Your task to perform on an android device: Open calendar and show me the second week of next month Image 0: 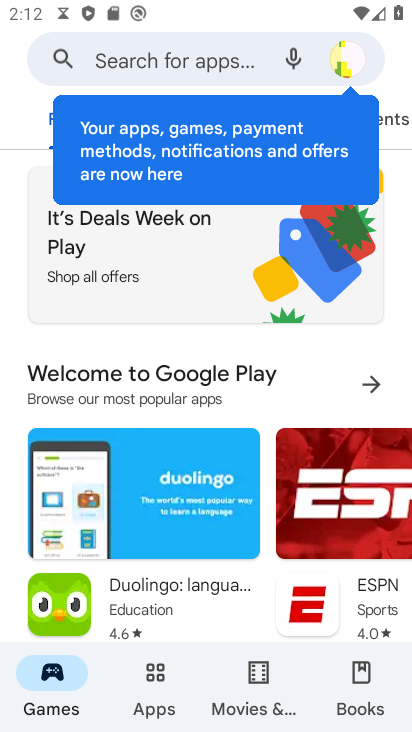
Step 0: press back button
Your task to perform on an android device: Open calendar and show me the second week of next month Image 1: 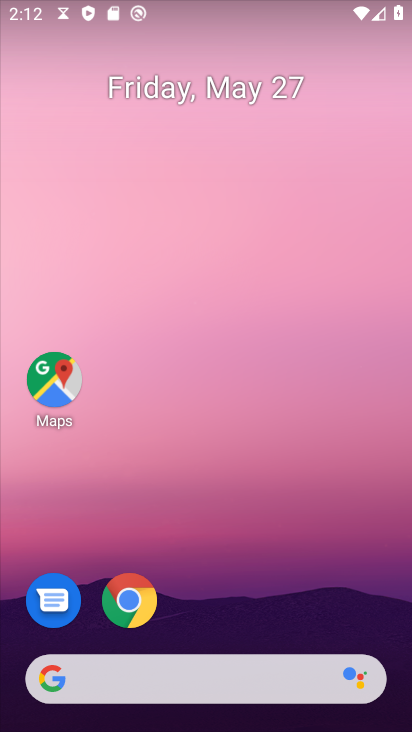
Step 1: drag from (263, 554) to (262, 24)
Your task to perform on an android device: Open calendar and show me the second week of next month Image 2: 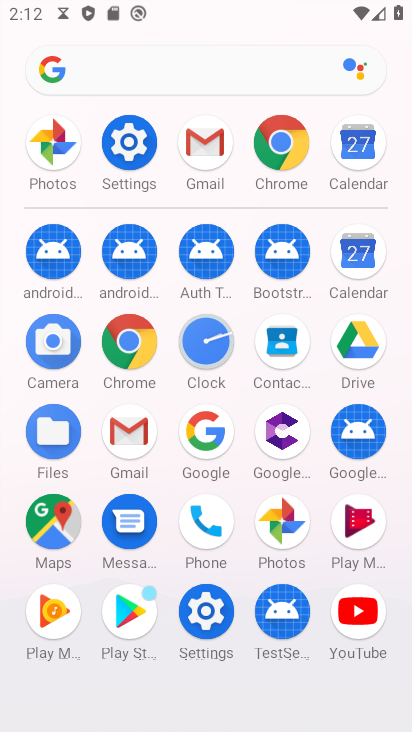
Step 2: drag from (1, 560) to (24, 240)
Your task to perform on an android device: Open calendar and show me the second week of next month Image 3: 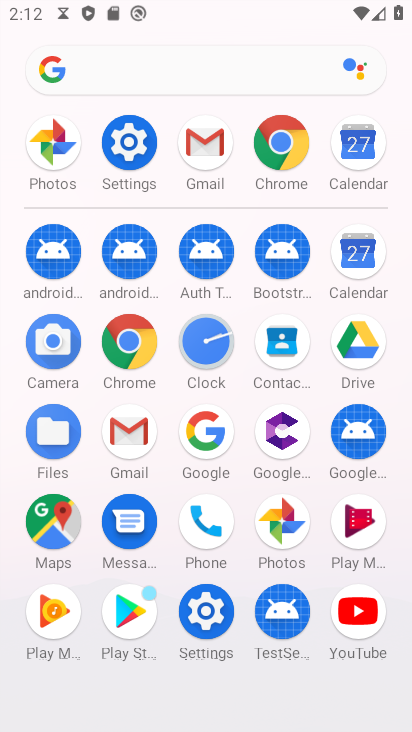
Step 3: click (359, 246)
Your task to perform on an android device: Open calendar and show me the second week of next month Image 4: 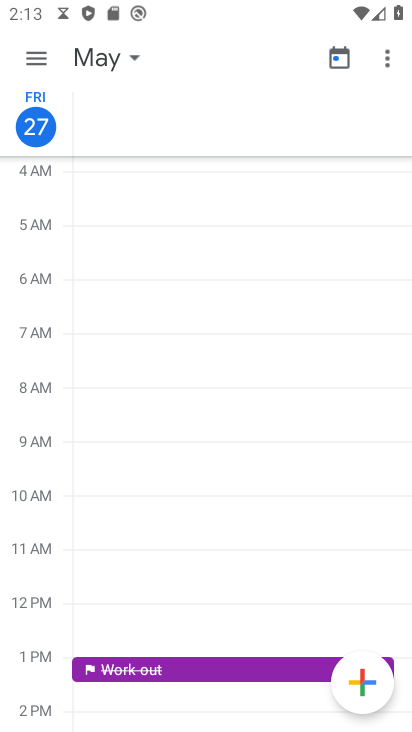
Step 4: click (127, 62)
Your task to perform on an android device: Open calendar and show me the second week of next month Image 5: 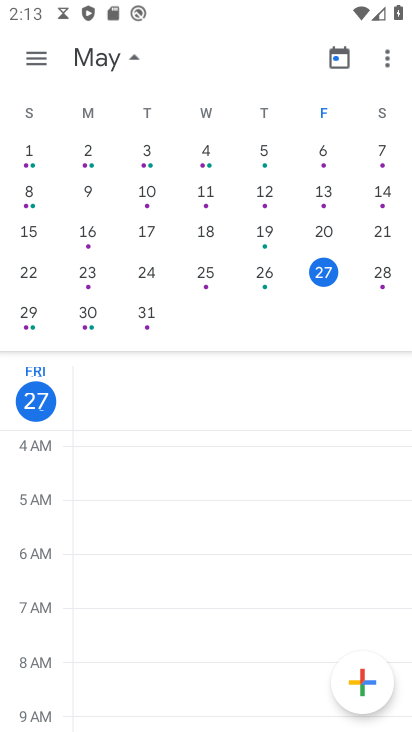
Step 5: drag from (364, 188) to (9, 151)
Your task to perform on an android device: Open calendar and show me the second week of next month Image 6: 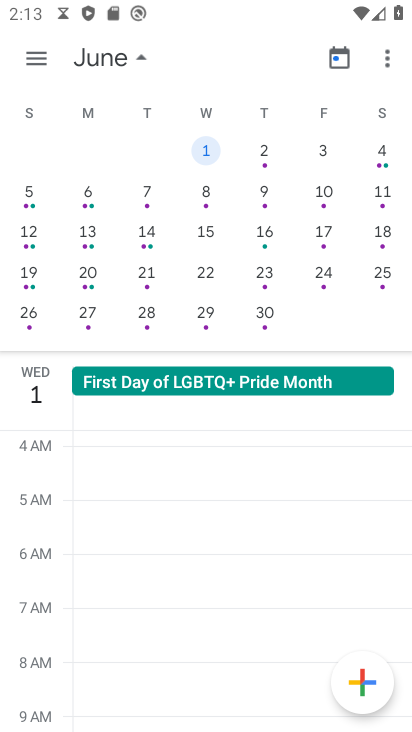
Step 6: click (24, 232)
Your task to perform on an android device: Open calendar and show me the second week of next month Image 7: 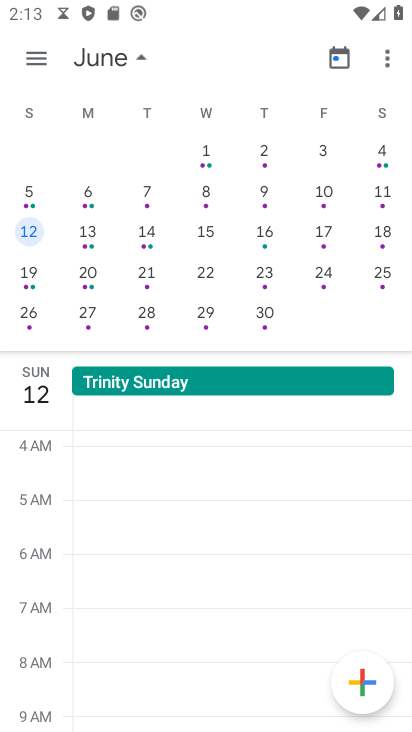
Step 7: click (37, 53)
Your task to perform on an android device: Open calendar and show me the second week of next month Image 8: 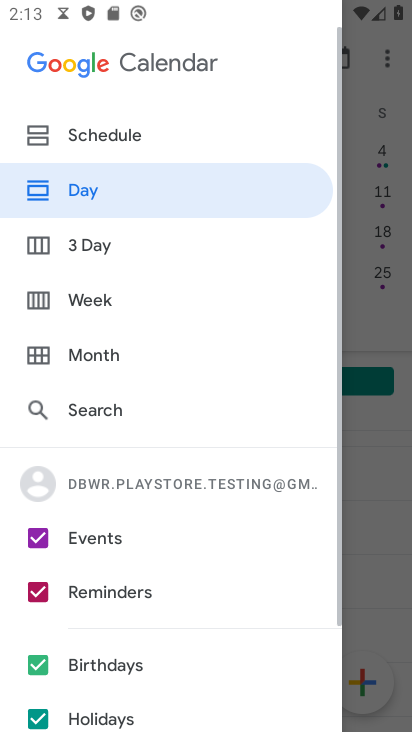
Step 8: click (102, 292)
Your task to perform on an android device: Open calendar and show me the second week of next month Image 9: 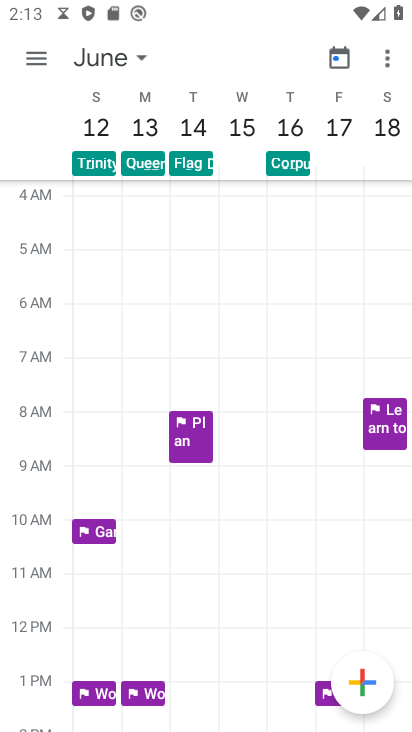
Step 9: task complete